Your task to perform on an android device: Go to display settings Image 0: 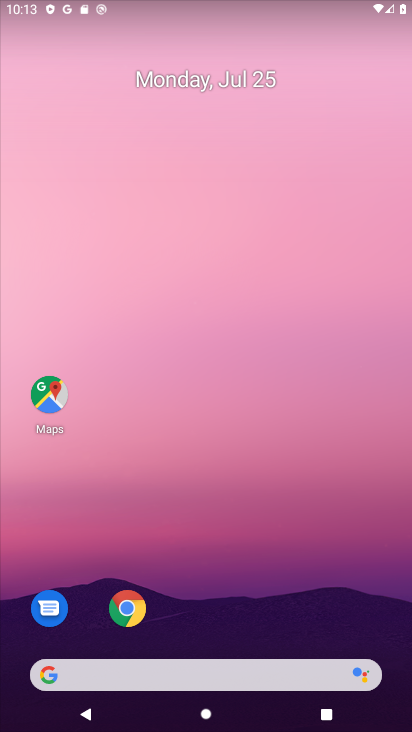
Step 0: drag from (174, 641) to (260, 161)
Your task to perform on an android device: Go to display settings Image 1: 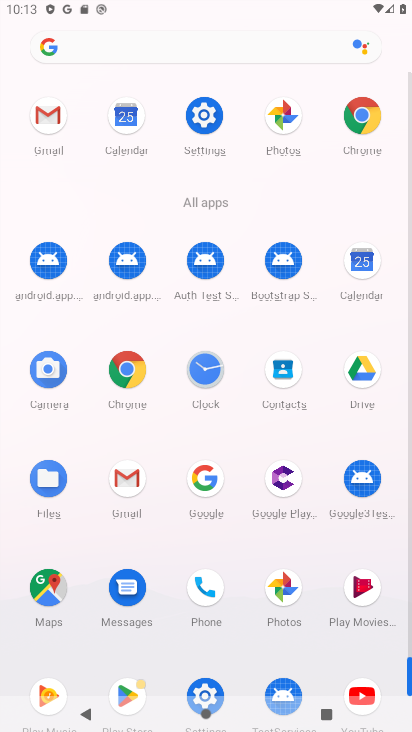
Step 1: click (211, 109)
Your task to perform on an android device: Go to display settings Image 2: 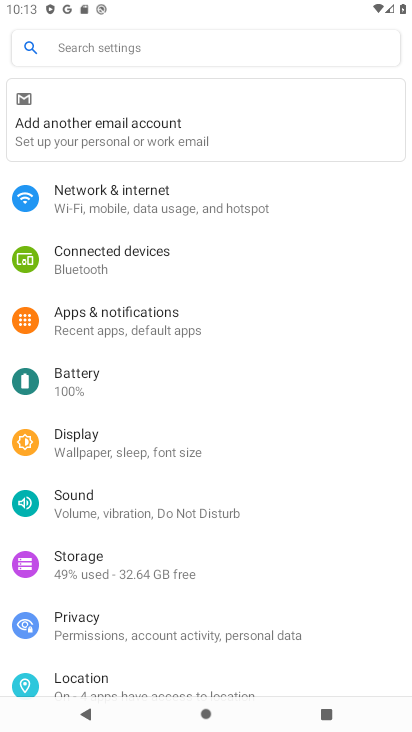
Step 2: click (88, 435)
Your task to perform on an android device: Go to display settings Image 3: 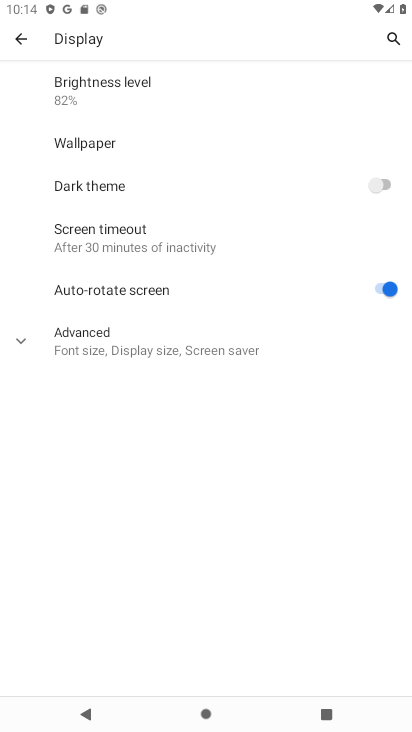
Step 3: task complete